Your task to perform on an android device: Search for Mexican restaurants on Maps Image 0: 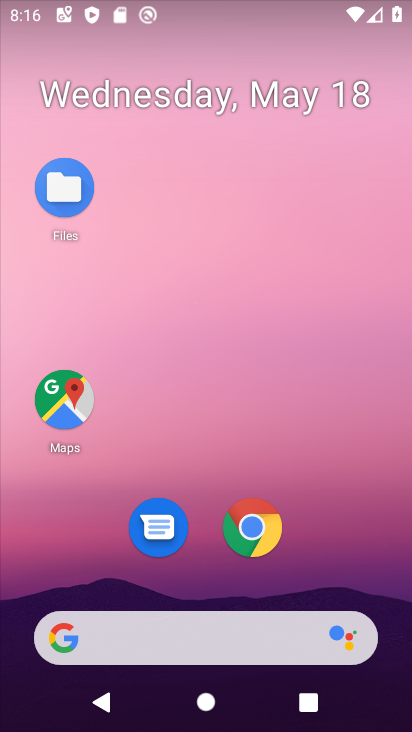
Step 0: drag from (338, 672) to (183, 208)
Your task to perform on an android device: Search for Mexican restaurants on Maps Image 1: 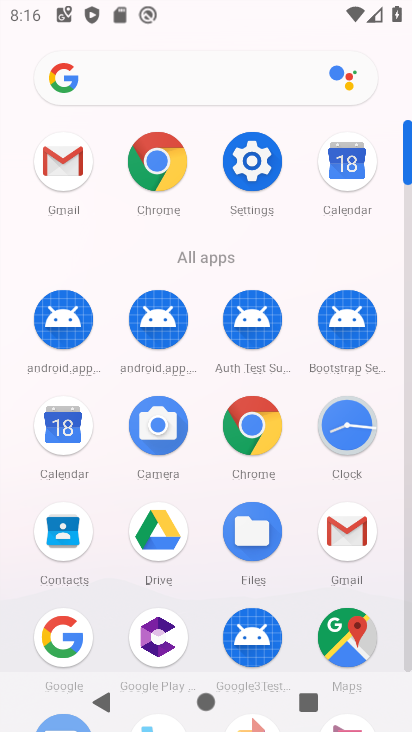
Step 1: click (354, 636)
Your task to perform on an android device: Search for Mexican restaurants on Maps Image 2: 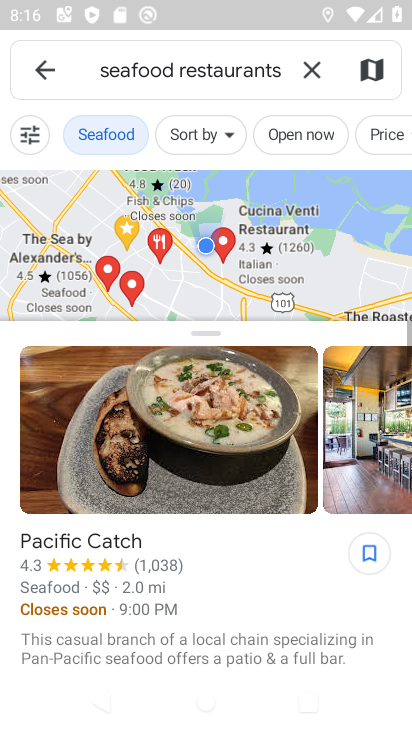
Step 2: click (312, 72)
Your task to perform on an android device: Search for Mexican restaurants on Maps Image 3: 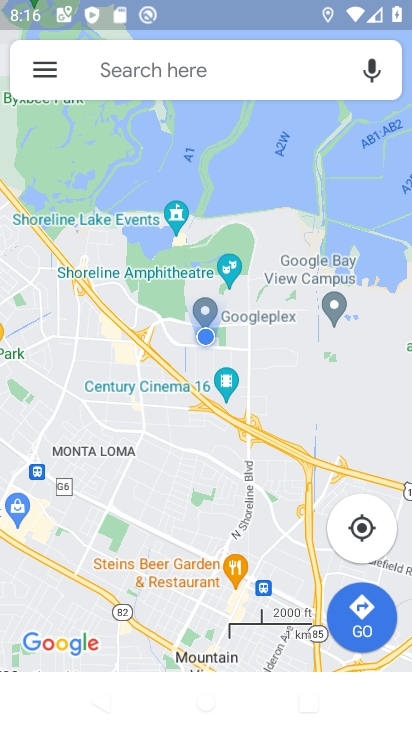
Step 3: click (121, 74)
Your task to perform on an android device: Search for Mexican restaurants on Maps Image 4: 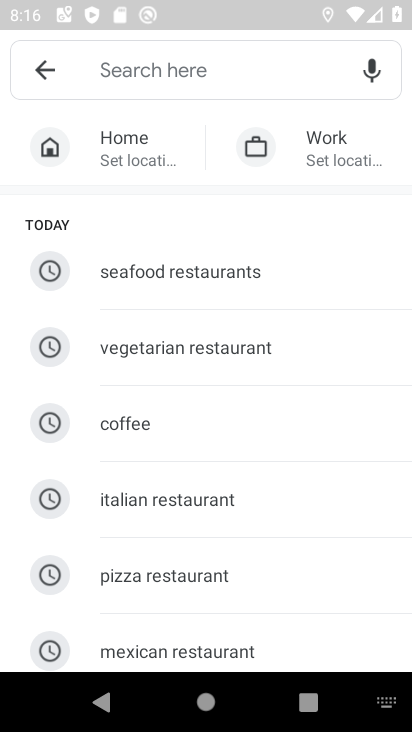
Step 4: click (173, 652)
Your task to perform on an android device: Search for Mexican restaurants on Maps Image 5: 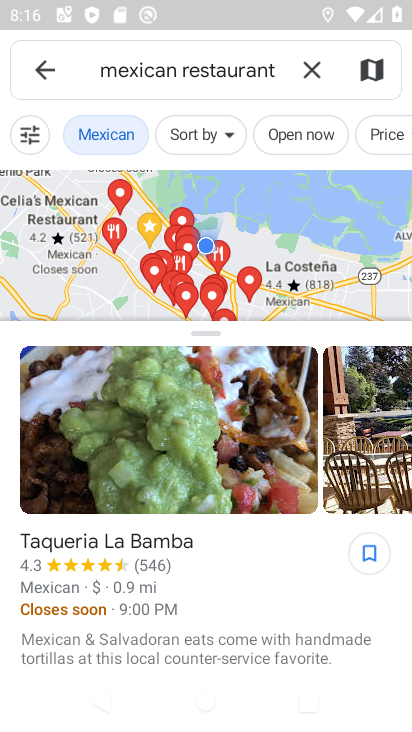
Step 5: task complete